Your task to perform on an android device: open the mobile data screen to see how much data has been used Image 0: 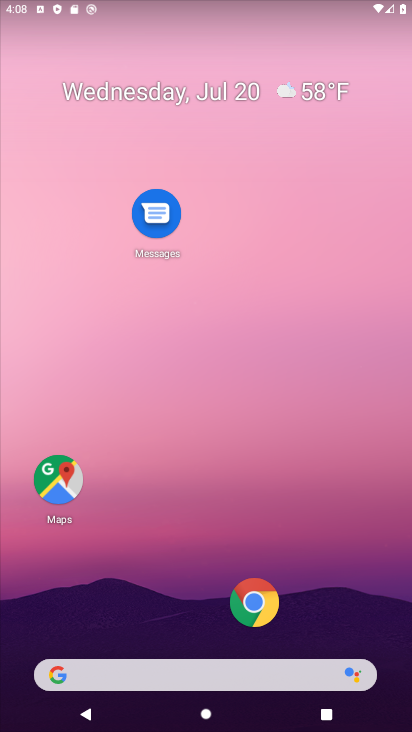
Step 0: drag from (150, 601) to (198, 130)
Your task to perform on an android device: open the mobile data screen to see how much data has been used Image 1: 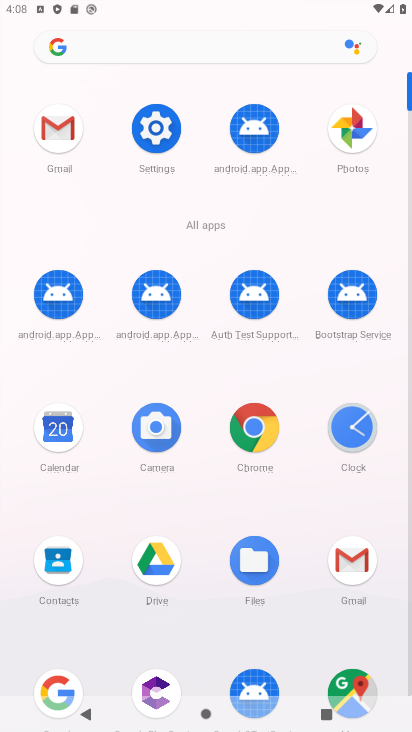
Step 1: click (155, 133)
Your task to perform on an android device: open the mobile data screen to see how much data has been used Image 2: 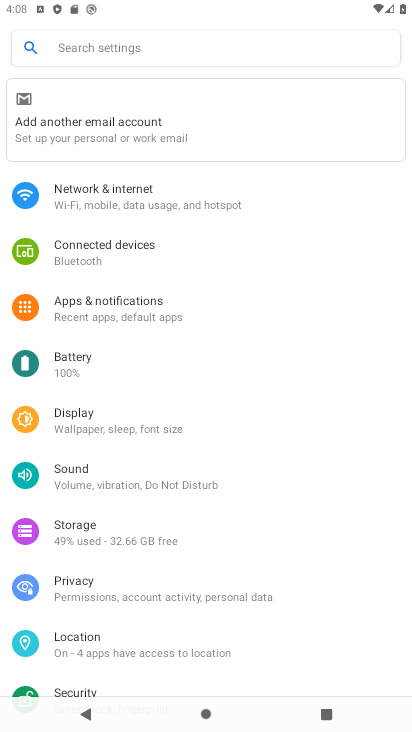
Step 2: click (86, 205)
Your task to perform on an android device: open the mobile data screen to see how much data has been used Image 3: 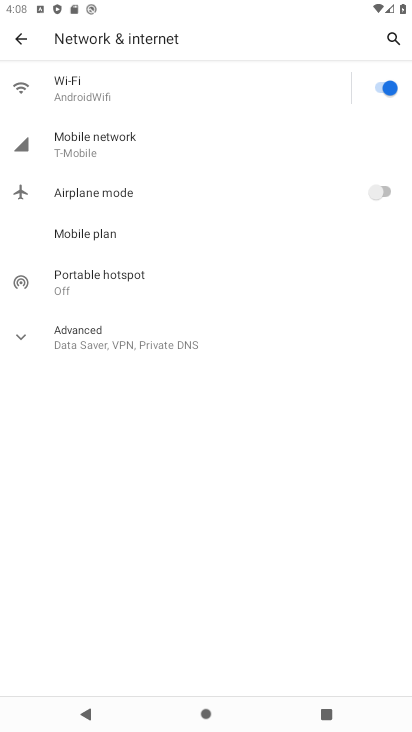
Step 3: click (158, 96)
Your task to perform on an android device: open the mobile data screen to see how much data has been used Image 4: 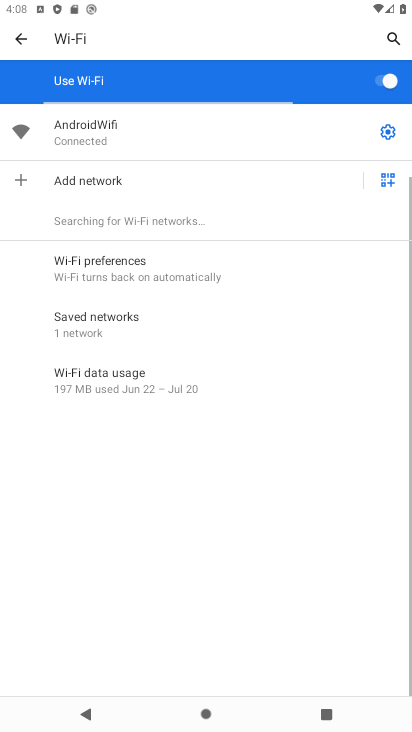
Step 4: click (26, 31)
Your task to perform on an android device: open the mobile data screen to see how much data has been used Image 5: 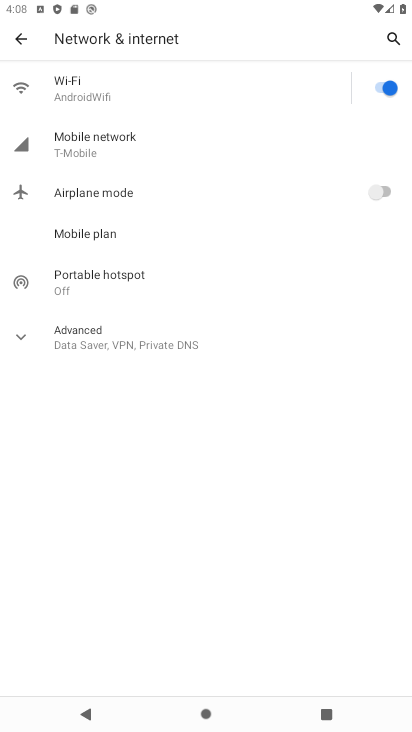
Step 5: click (156, 149)
Your task to perform on an android device: open the mobile data screen to see how much data has been used Image 6: 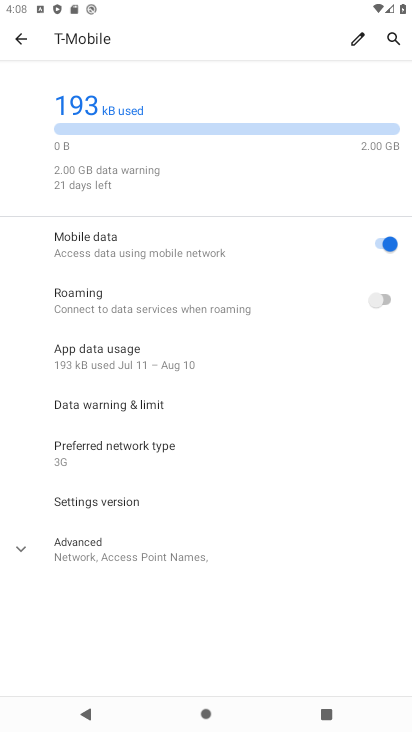
Step 6: task complete